Your task to perform on an android device: turn on the 12-hour format for clock Image 0: 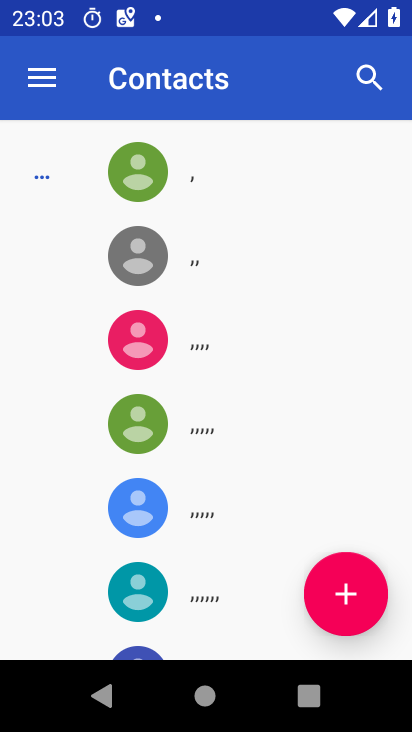
Step 0: press home button
Your task to perform on an android device: turn on the 12-hour format for clock Image 1: 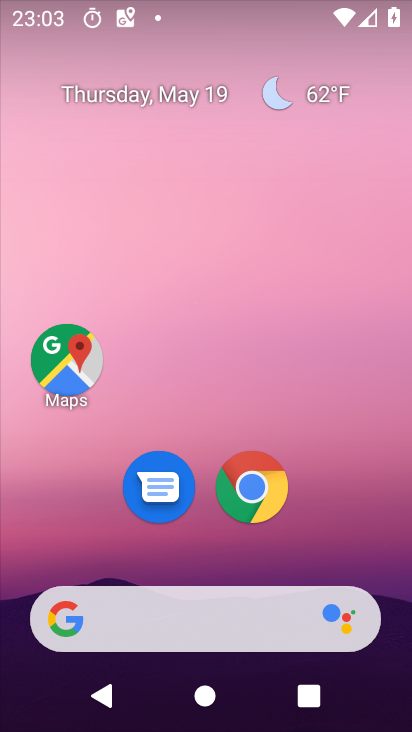
Step 1: drag from (319, 547) to (327, 18)
Your task to perform on an android device: turn on the 12-hour format for clock Image 2: 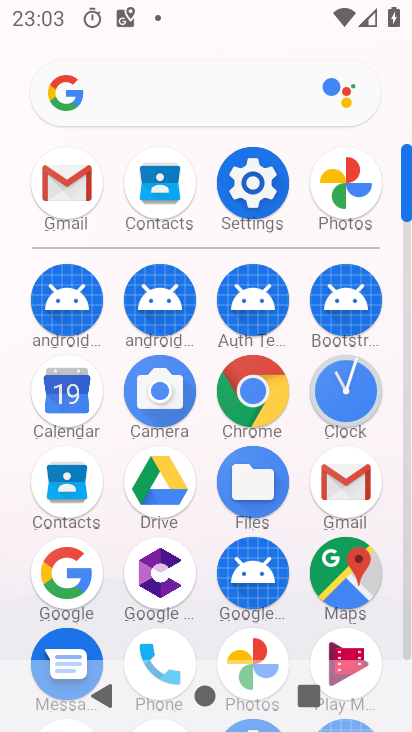
Step 2: click (340, 377)
Your task to perform on an android device: turn on the 12-hour format for clock Image 3: 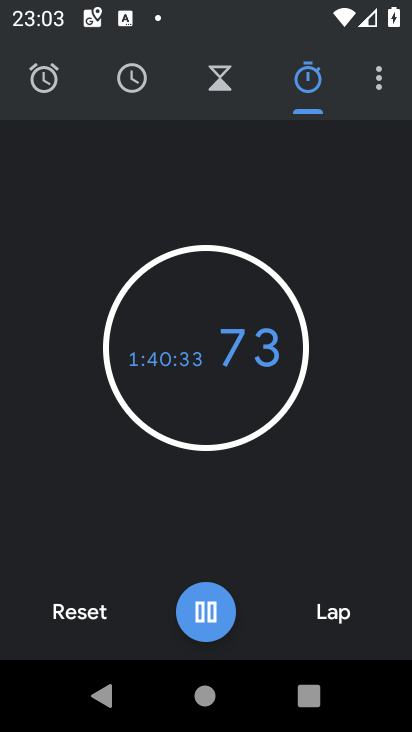
Step 3: click (381, 88)
Your task to perform on an android device: turn on the 12-hour format for clock Image 4: 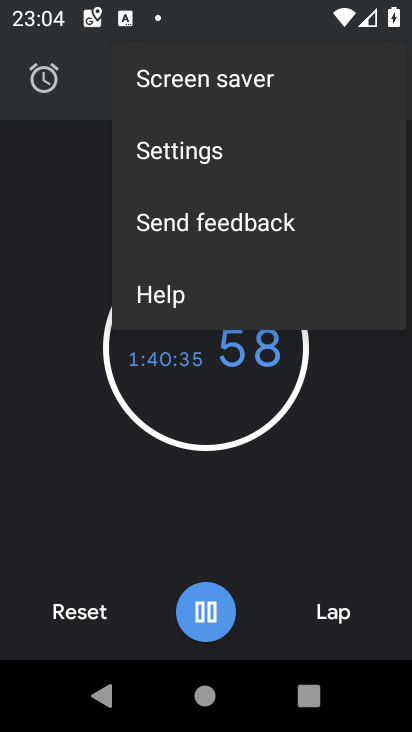
Step 4: click (243, 164)
Your task to perform on an android device: turn on the 12-hour format for clock Image 5: 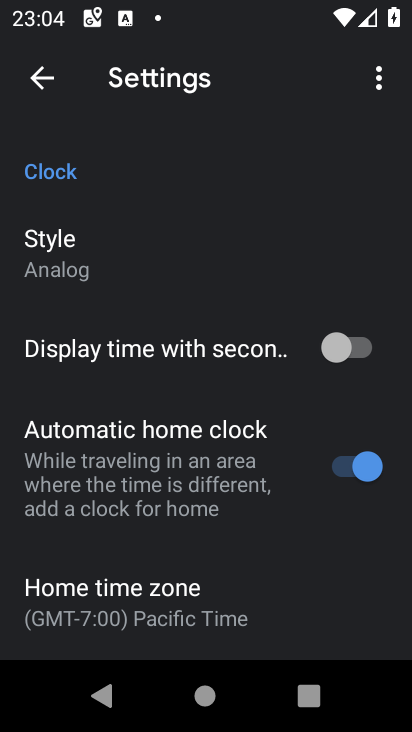
Step 5: drag from (275, 542) to (254, 232)
Your task to perform on an android device: turn on the 12-hour format for clock Image 6: 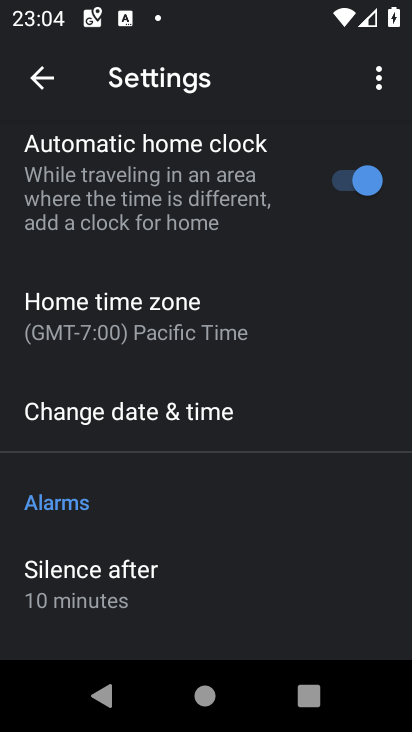
Step 6: click (191, 400)
Your task to perform on an android device: turn on the 12-hour format for clock Image 7: 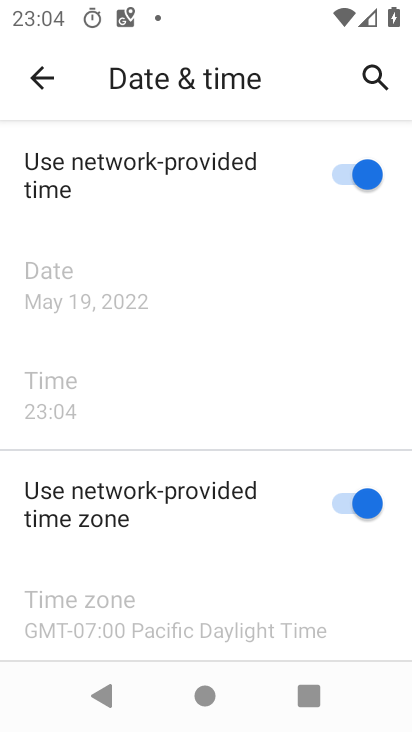
Step 7: drag from (139, 571) to (152, 158)
Your task to perform on an android device: turn on the 12-hour format for clock Image 8: 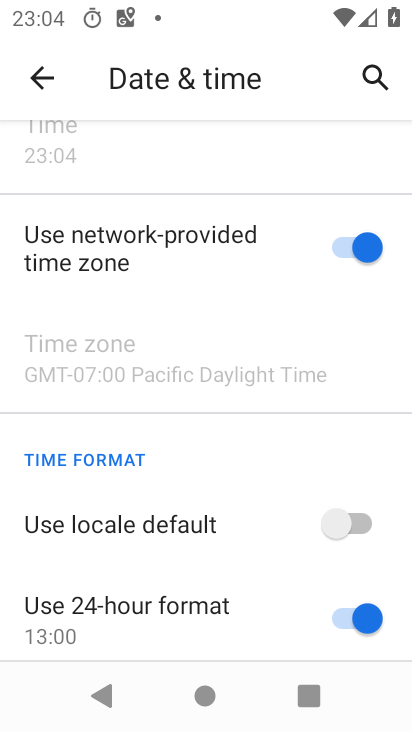
Step 8: click (343, 603)
Your task to perform on an android device: turn on the 12-hour format for clock Image 9: 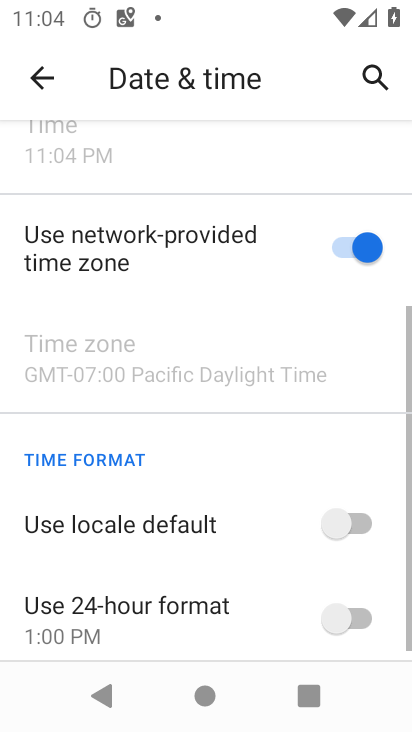
Step 9: click (348, 530)
Your task to perform on an android device: turn on the 12-hour format for clock Image 10: 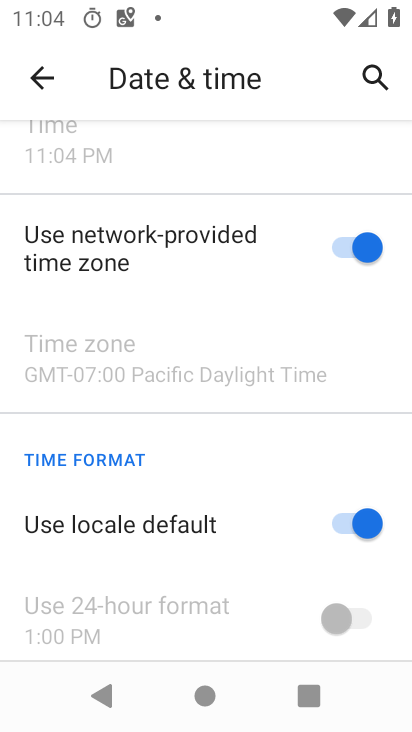
Step 10: task complete